Your task to perform on an android device: See recent photos Image 0: 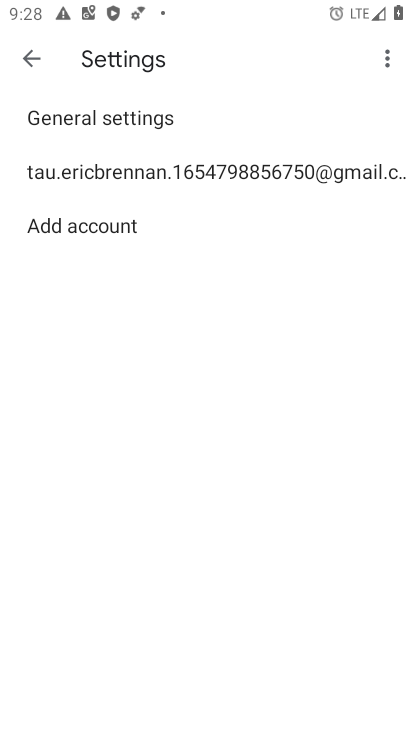
Step 0: press home button
Your task to perform on an android device: See recent photos Image 1: 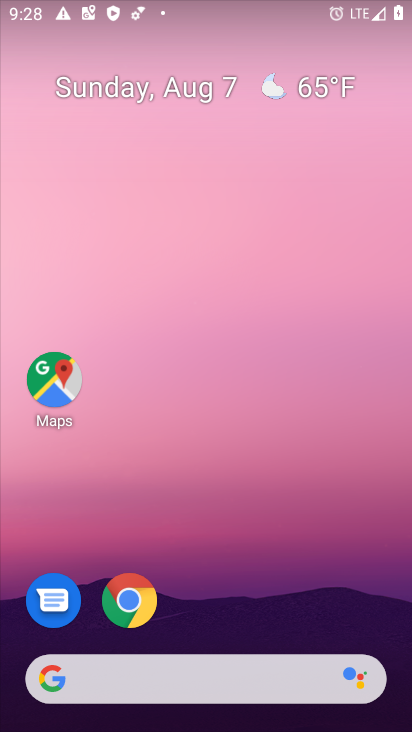
Step 1: drag from (205, 606) to (222, 119)
Your task to perform on an android device: See recent photos Image 2: 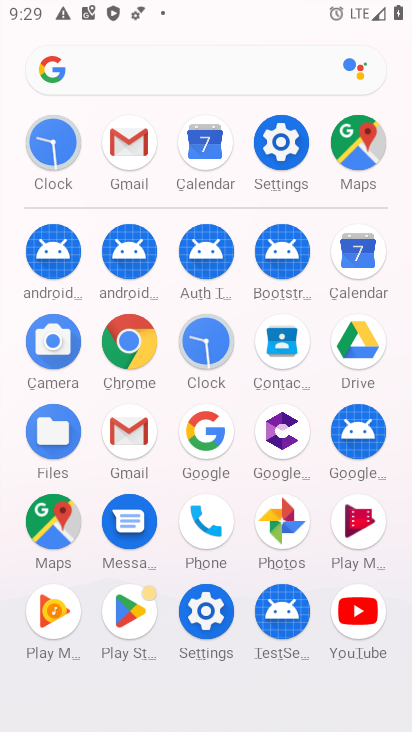
Step 2: click (276, 519)
Your task to perform on an android device: See recent photos Image 3: 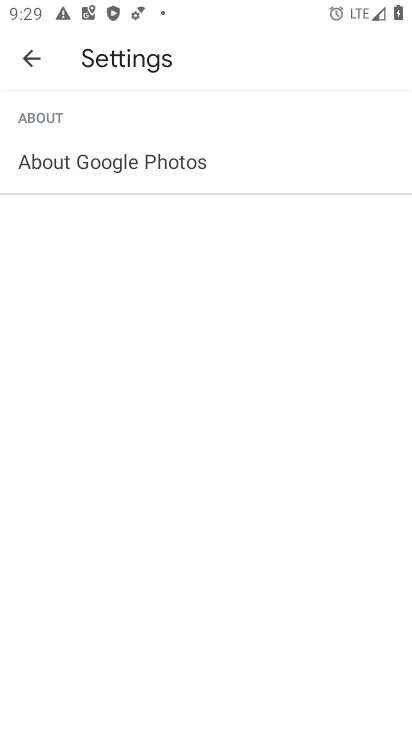
Step 3: click (35, 60)
Your task to perform on an android device: See recent photos Image 4: 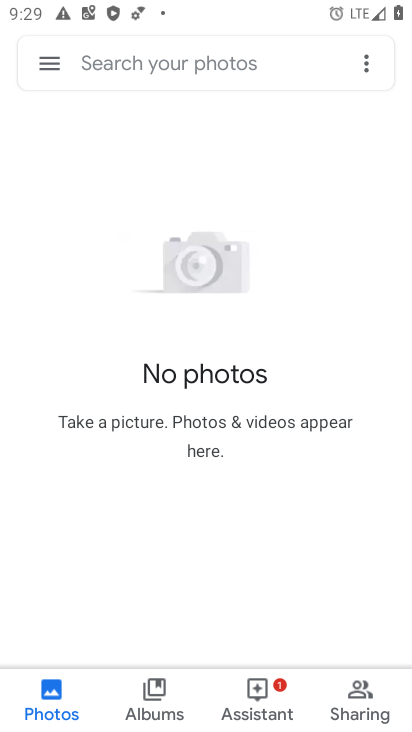
Step 4: click (145, 708)
Your task to perform on an android device: See recent photos Image 5: 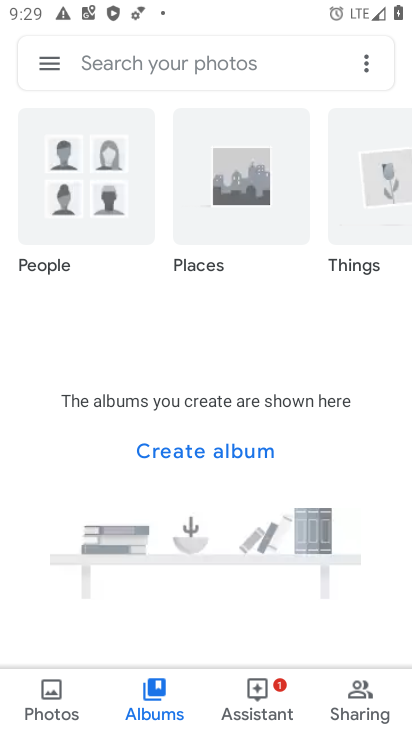
Step 5: task complete